Your task to perform on an android device: search for starred emails in the gmail app Image 0: 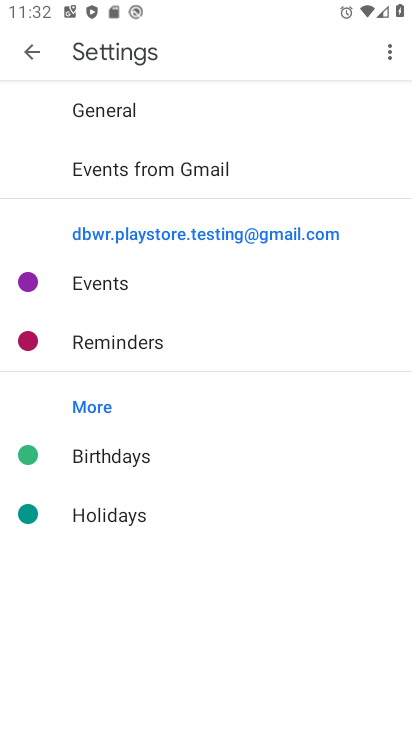
Step 0: press home button
Your task to perform on an android device: search for starred emails in the gmail app Image 1: 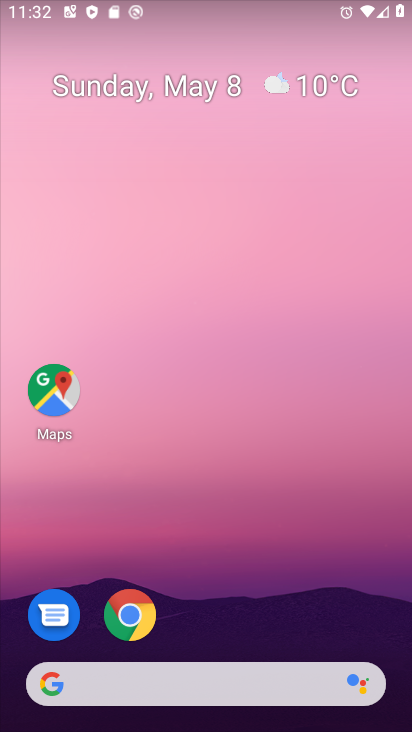
Step 1: drag from (189, 698) to (306, 281)
Your task to perform on an android device: search for starred emails in the gmail app Image 2: 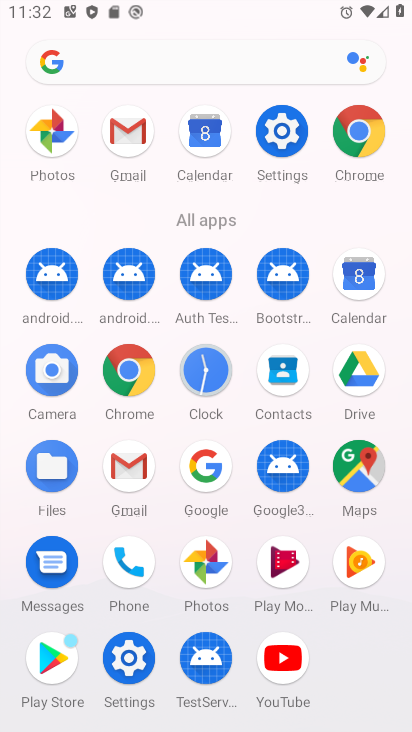
Step 2: click (134, 150)
Your task to perform on an android device: search for starred emails in the gmail app Image 3: 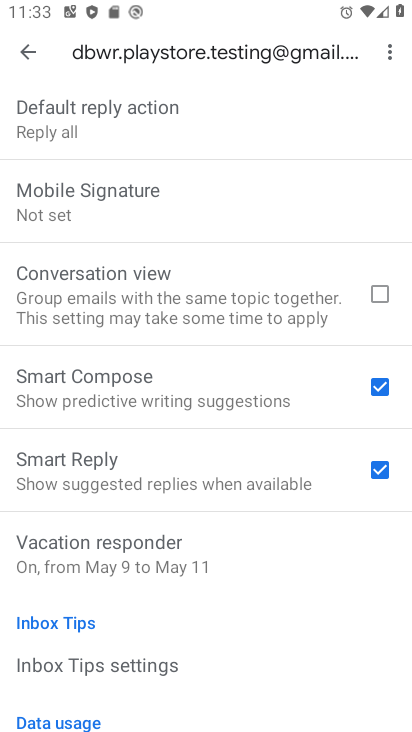
Step 3: drag from (135, 262) to (78, 534)
Your task to perform on an android device: search for starred emails in the gmail app Image 4: 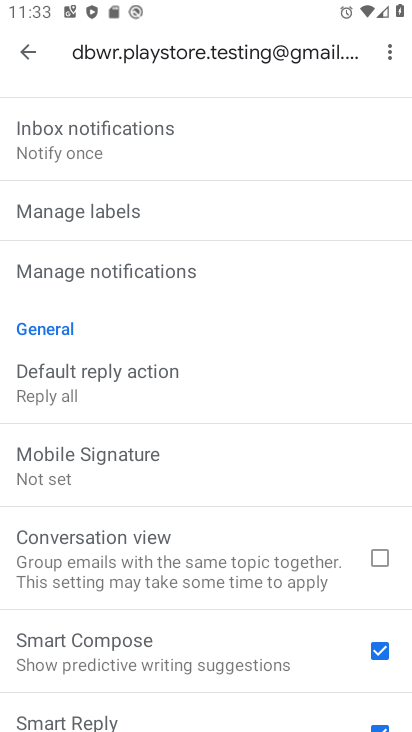
Step 4: click (34, 57)
Your task to perform on an android device: search for starred emails in the gmail app Image 5: 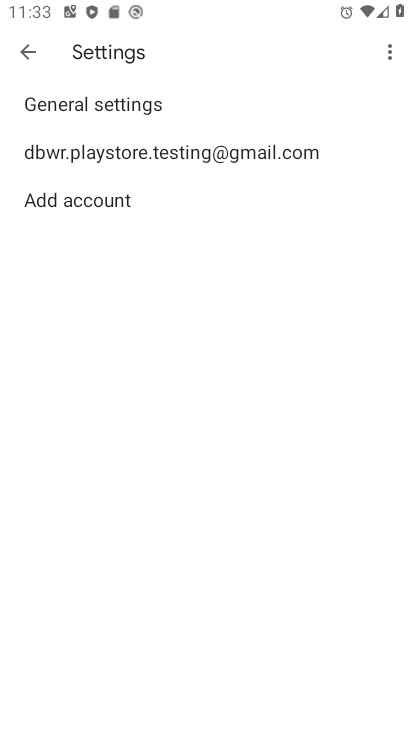
Step 5: click (34, 50)
Your task to perform on an android device: search for starred emails in the gmail app Image 6: 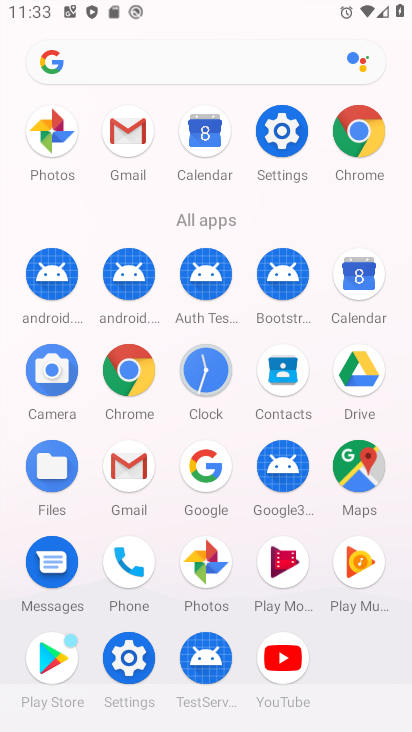
Step 6: click (123, 119)
Your task to perform on an android device: search for starred emails in the gmail app Image 7: 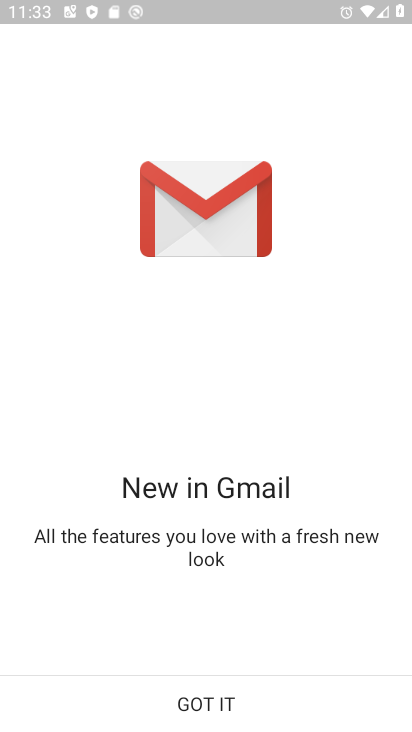
Step 7: click (228, 691)
Your task to perform on an android device: search for starred emails in the gmail app Image 8: 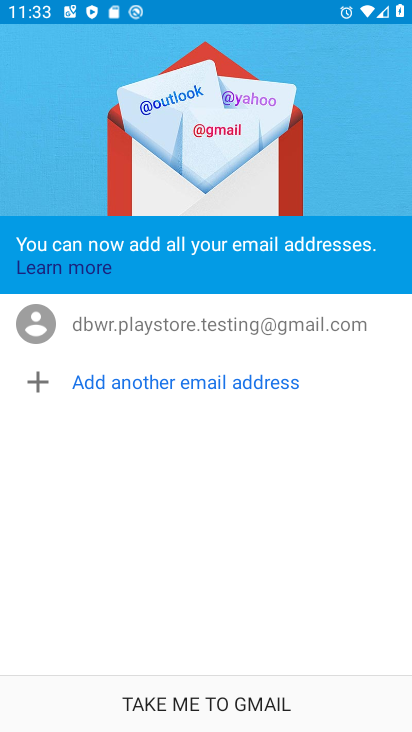
Step 8: click (242, 699)
Your task to perform on an android device: search for starred emails in the gmail app Image 9: 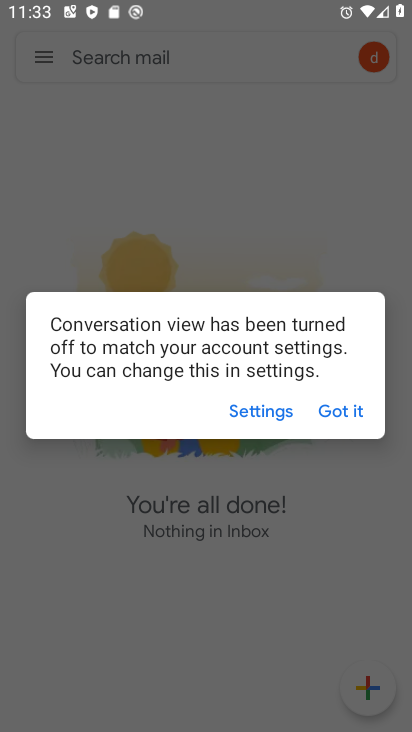
Step 9: click (327, 415)
Your task to perform on an android device: search for starred emails in the gmail app Image 10: 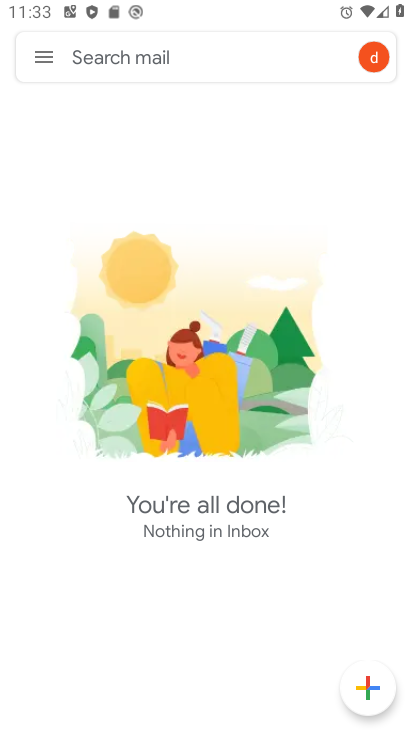
Step 10: click (47, 57)
Your task to perform on an android device: search for starred emails in the gmail app Image 11: 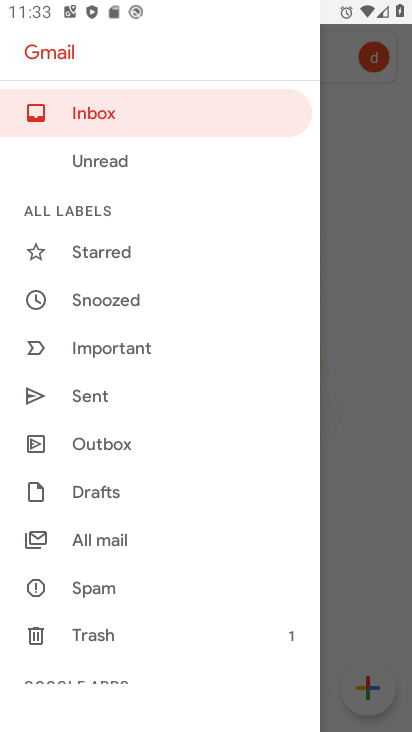
Step 11: click (133, 264)
Your task to perform on an android device: search for starred emails in the gmail app Image 12: 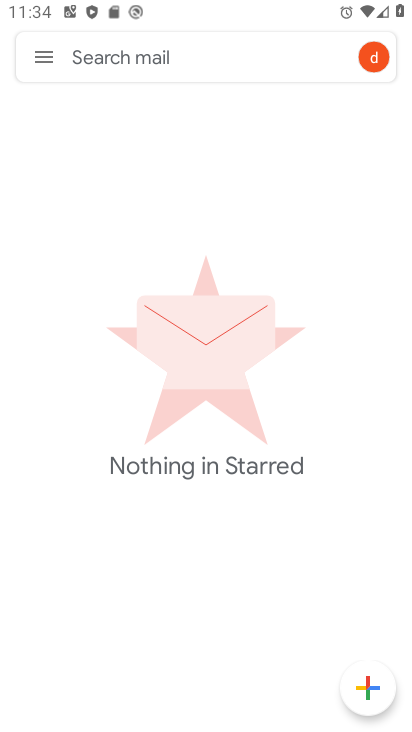
Step 12: task complete